Your task to perform on an android device: turn off sleep mode Image 0: 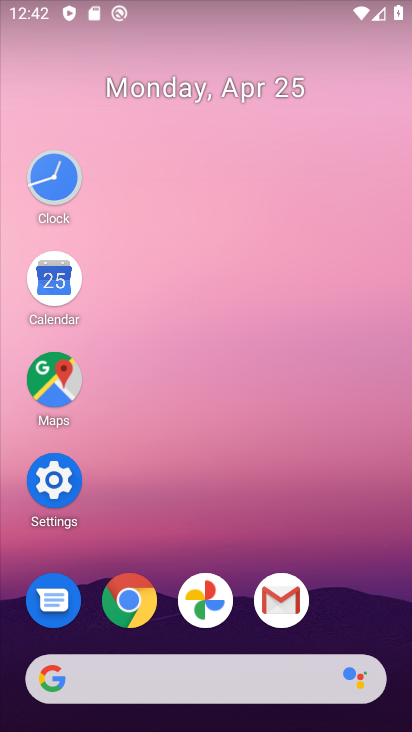
Step 0: click (57, 483)
Your task to perform on an android device: turn off sleep mode Image 1: 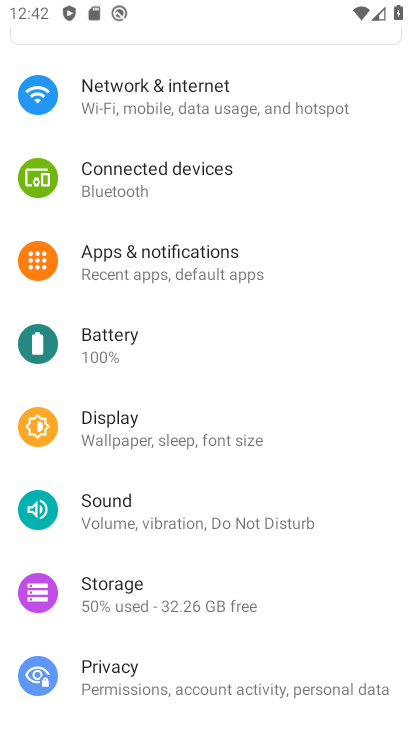
Step 1: click (106, 417)
Your task to perform on an android device: turn off sleep mode Image 2: 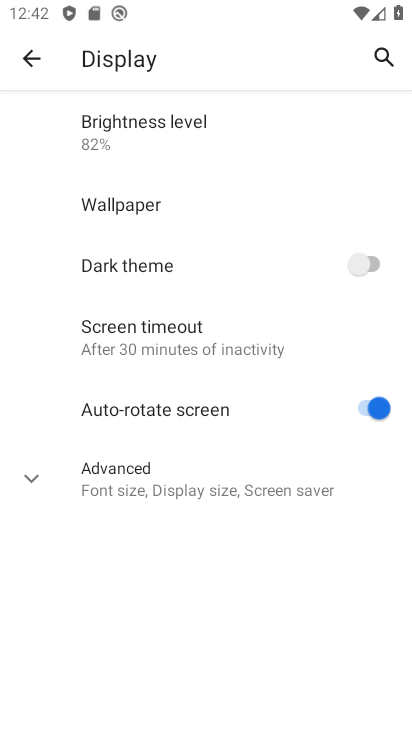
Step 2: task complete